Your task to perform on an android device: Open Yahoo.com Image 0: 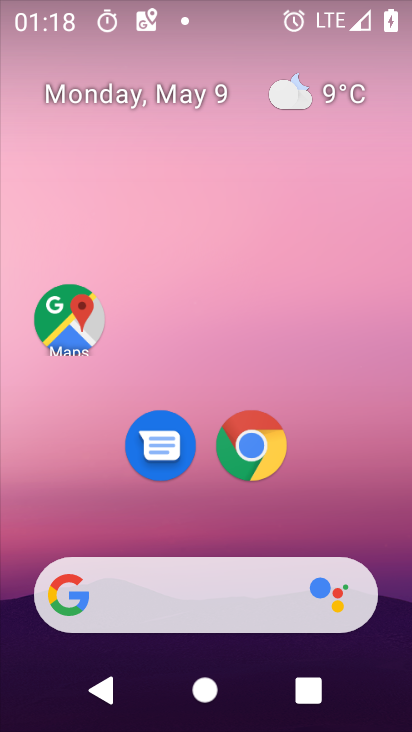
Step 0: click (254, 455)
Your task to perform on an android device: Open Yahoo.com Image 1: 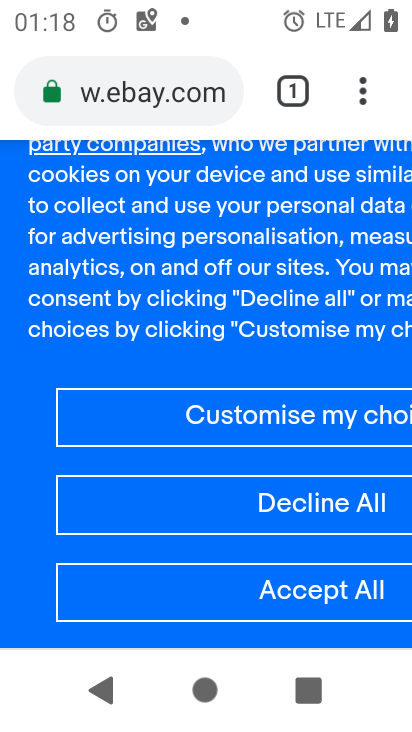
Step 1: click (110, 99)
Your task to perform on an android device: Open Yahoo.com Image 2: 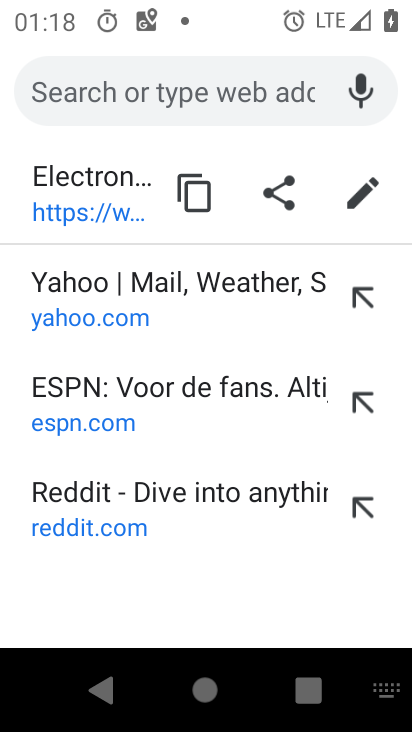
Step 2: click (96, 299)
Your task to perform on an android device: Open Yahoo.com Image 3: 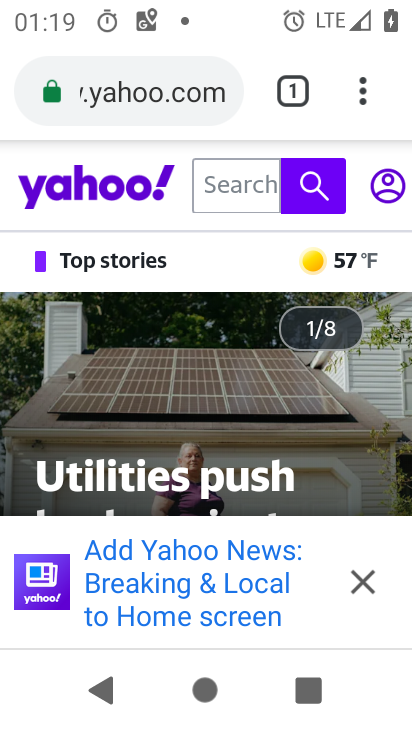
Step 3: task complete